Your task to perform on an android device: Open Amazon Image 0: 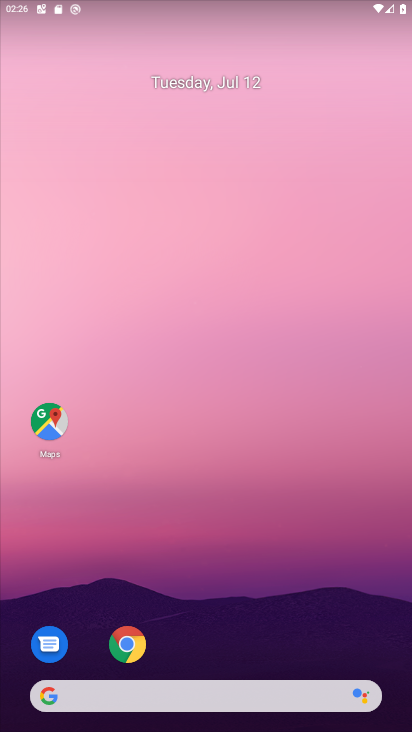
Step 0: drag from (175, 655) to (165, 137)
Your task to perform on an android device: Open Amazon Image 1: 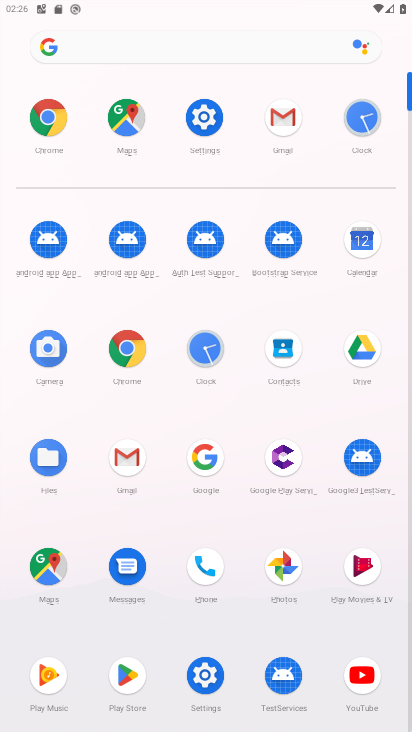
Step 1: click (114, 353)
Your task to perform on an android device: Open Amazon Image 2: 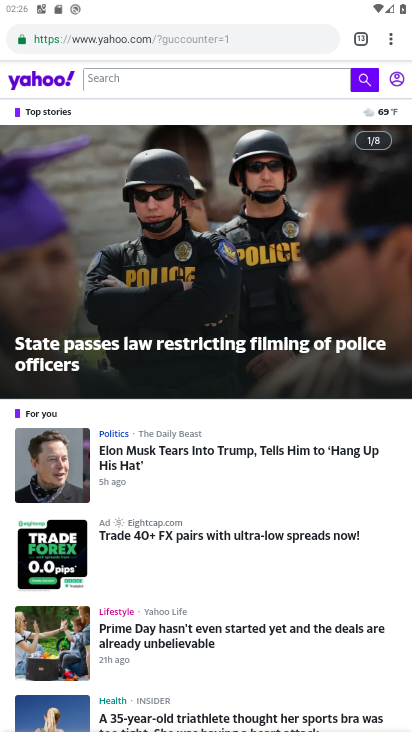
Step 2: click (362, 42)
Your task to perform on an android device: Open Amazon Image 3: 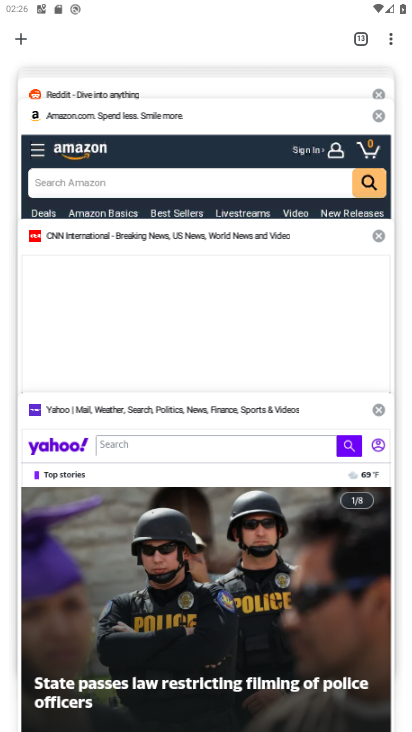
Step 3: click (61, 128)
Your task to perform on an android device: Open Amazon Image 4: 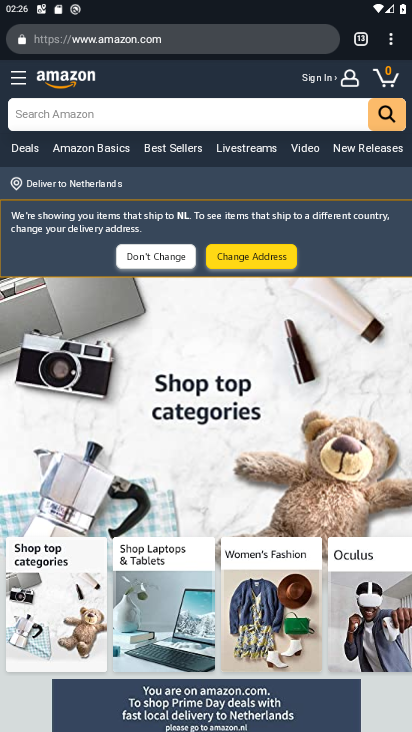
Step 4: task complete